Your task to perform on an android device: remove spam from my inbox in the gmail app Image 0: 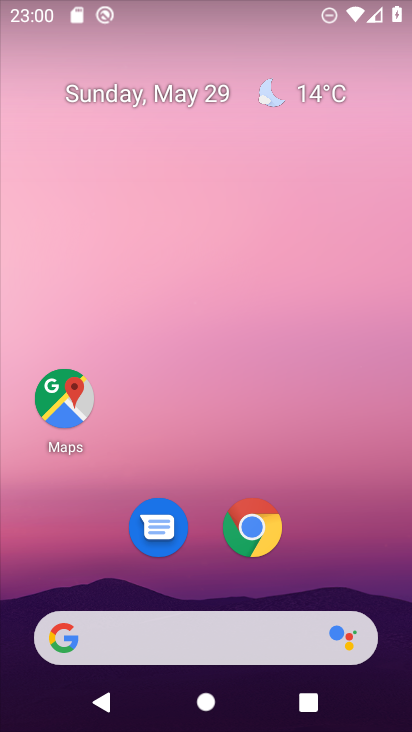
Step 0: press home button
Your task to perform on an android device: remove spam from my inbox in the gmail app Image 1: 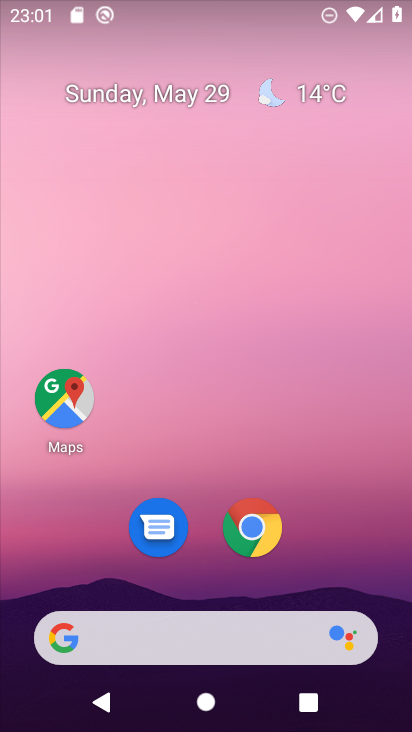
Step 1: drag from (213, 641) to (278, 144)
Your task to perform on an android device: remove spam from my inbox in the gmail app Image 2: 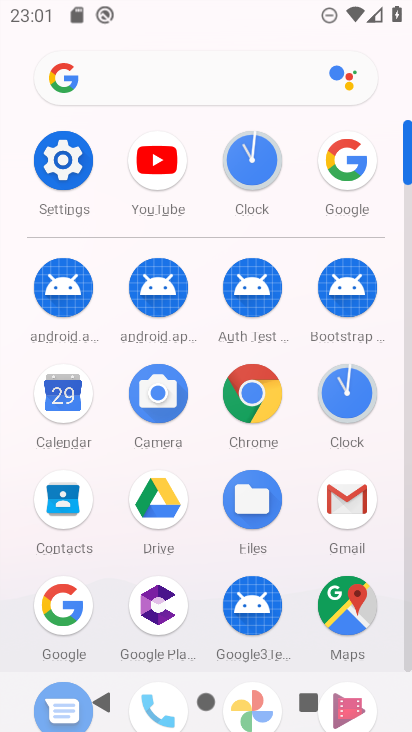
Step 2: click (347, 501)
Your task to perform on an android device: remove spam from my inbox in the gmail app Image 3: 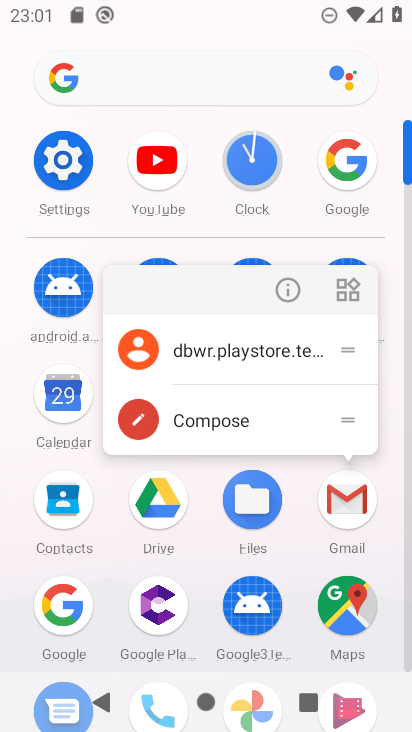
Step 3: click (337, 513)
Your task to perform on an android device: remove spam from my inbox in the gmail app Image 4: 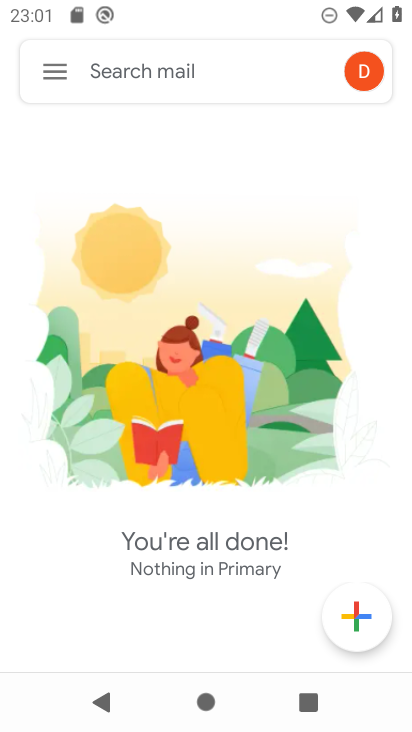
Step 4: click (59, 65)
Your task to perform on an android device: remove spam from my inbox in the gmail app Image 5: 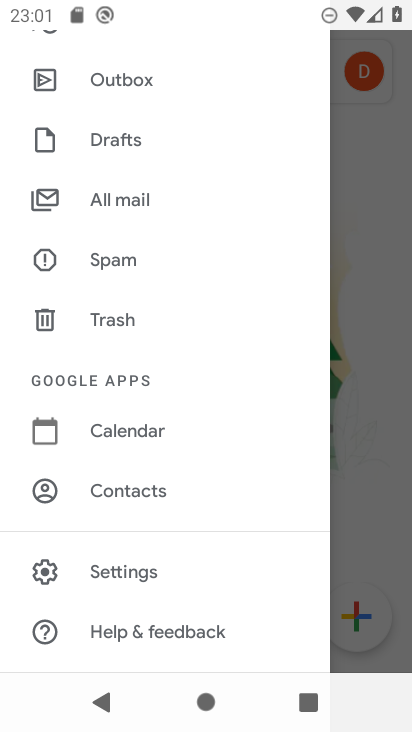
Step 5: click (121, 258)
Your task to perform on an android device: remove spam from my inbox in the gmail app Image 6: 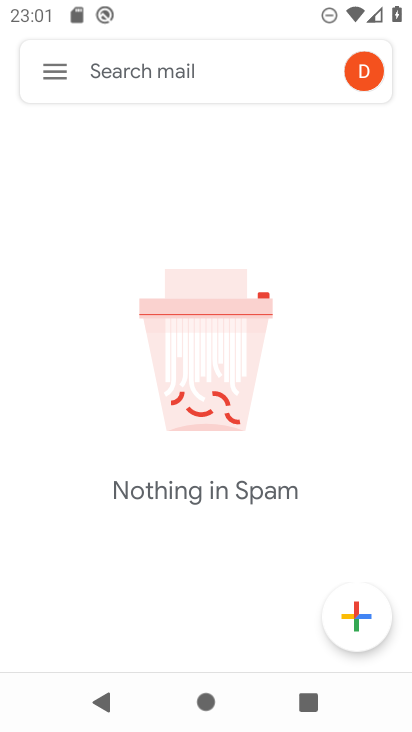
Step 6: task complete